Your task to perform on an android device: Clear the shopping cart on ebay. Add "lenovo thinkpad" to the cart on ebay, then select checkout. Image 0: 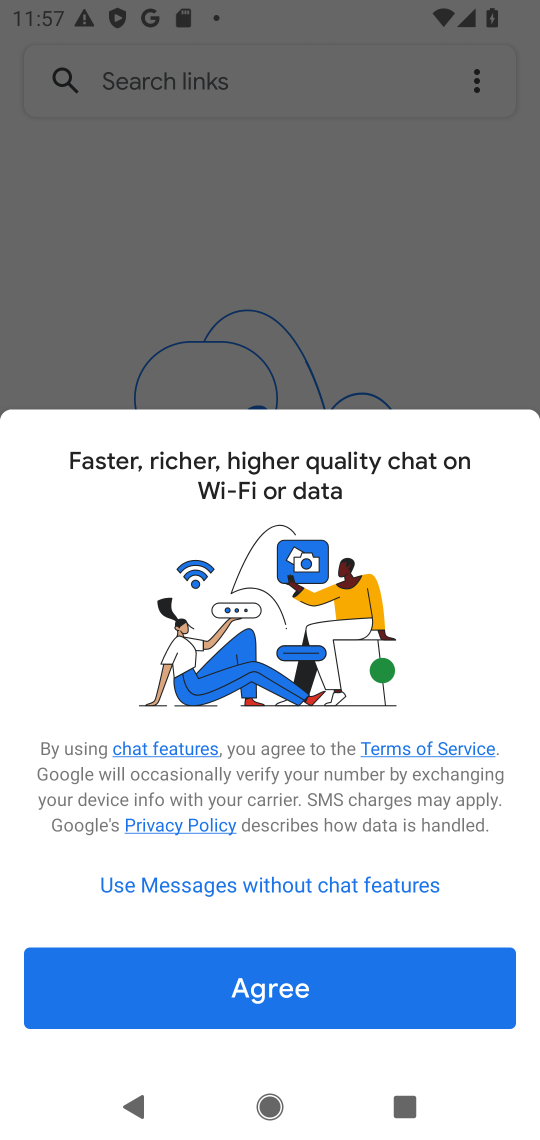
Step 0: press home button
Your task to perform on an android device: Clear the shopping cart on ebay. Add "lenovo thinkpad" to the cart on ebay, then select checkout. Image 1: 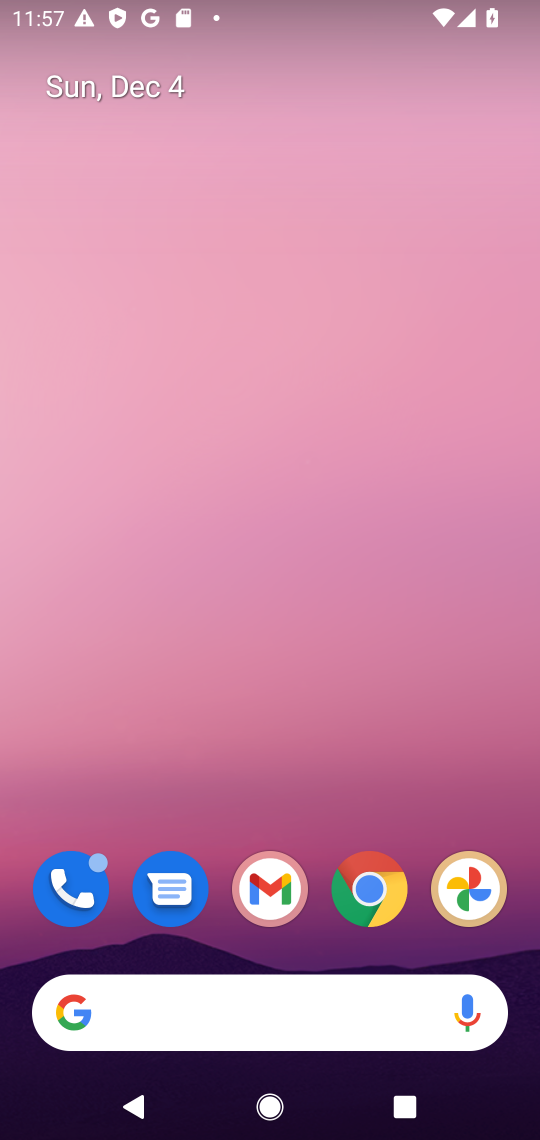
Step 1: click (366, 898)
Your task to perform on an android device: Clear the shopping cart on ebay. Add "lenovo thinkpad" to the cart on ebay, then select checkout. Image 2: 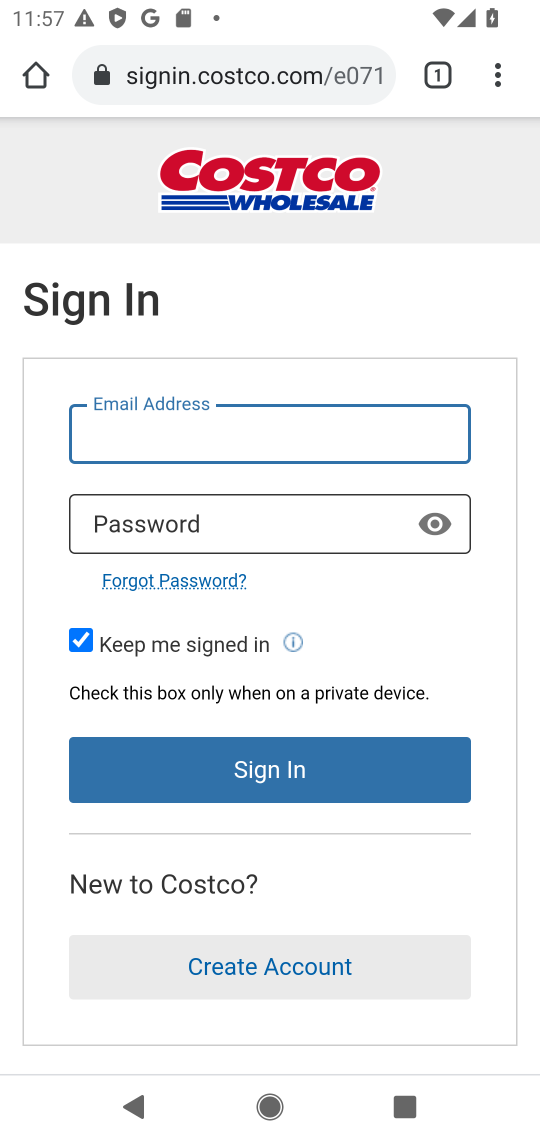
Step 2: click (286, 72)
Your task to perform on an android device: Clear the shopping cart on ebay. Add "lenovo thinkpad" to the cart on ebay, then select checkout. Image 3: 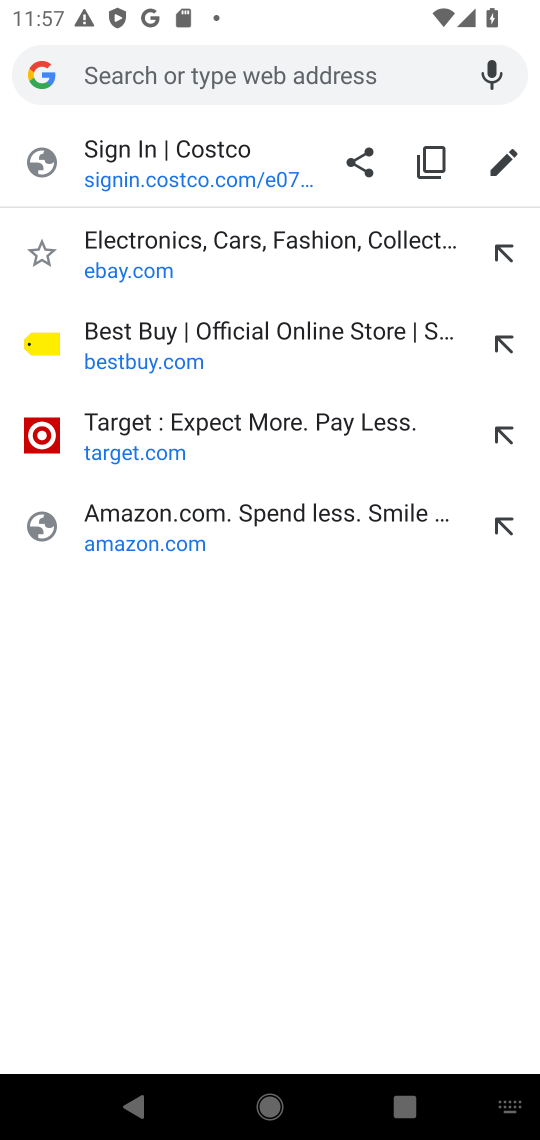
Step 3: click (192, 243)
Your task to perform on an android device: Clear the shopping cart on ebay. Add "lenovo thinkpad" to the cart on ebay, then select checkout. Image 4: 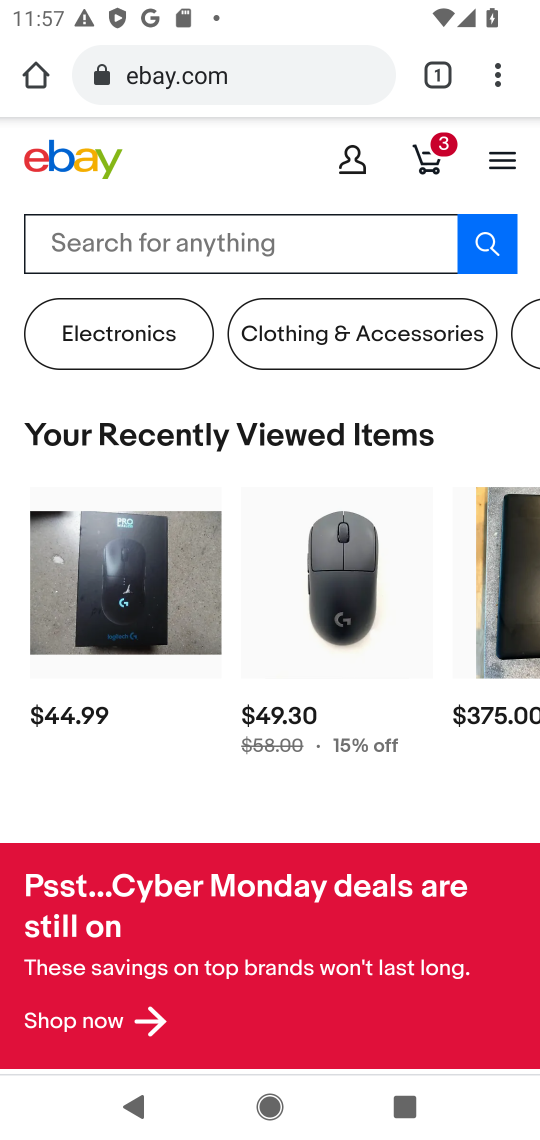
Step 4: click (438, 164)
Your task to perform on an android device: Clear the shopping cart on ebay. Add "lenovo thinkpad" to the cart on ebay, then select checkout. Image 5: 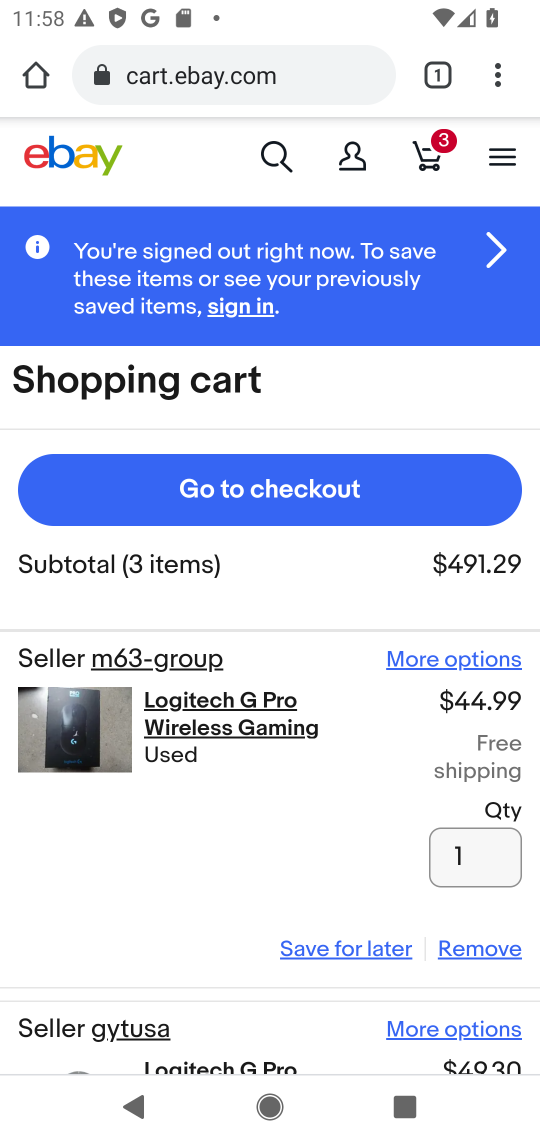
Step 5: click (497, 939)
Your task to perform on an android device: Clear the shopping cart on ebay. Add "lenovo thinkpad" to the cart on ebay, then select checkout. Image 6: 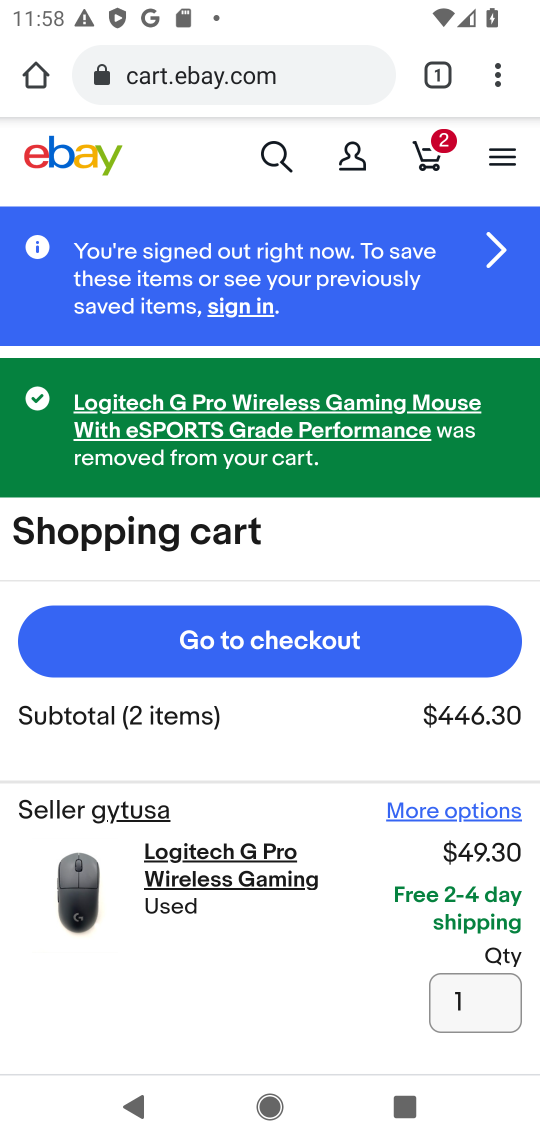
Step 6: drag from (362, 914) to (369, 553)
Your task to perform on an android device: Clear the shopping cart on ebay. Add "lenovo thinkpad" to the cart on ebay, then select checkout. Image 7: 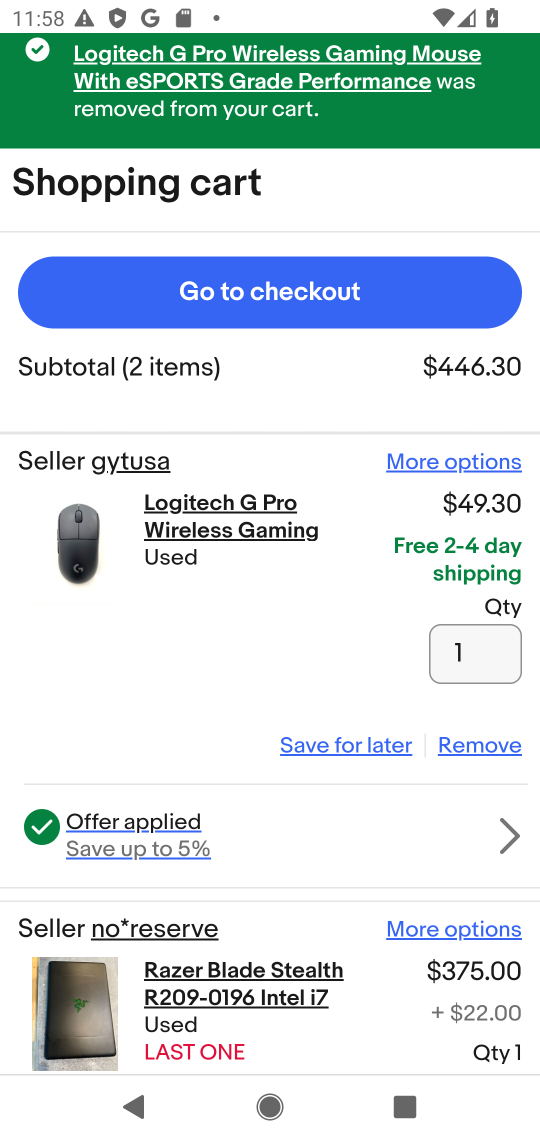
Step 7: click (487, 741)
Your task to perform on an android device: Clear the shopping cart on ebay. Add "lenovo thinkpad" to the cart on ebay, then select checkout. Image 8: 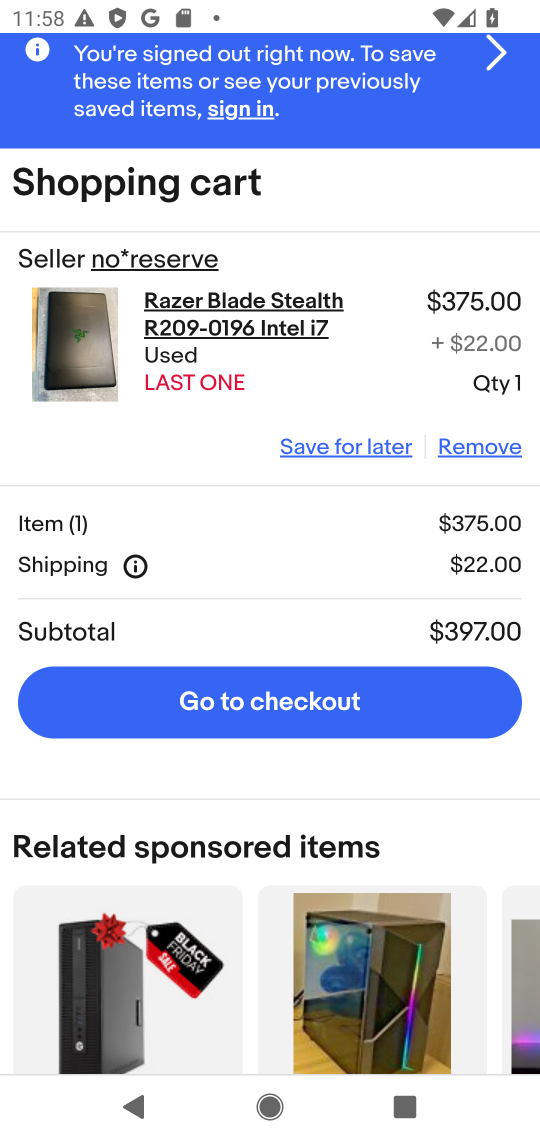
Step 8: click (480, 446)
Your task to perform on an android device: Clear the shopping cart on ebay. Add "lenovo thinkpad" to the cart on ebay, then select checkout. Image 9: 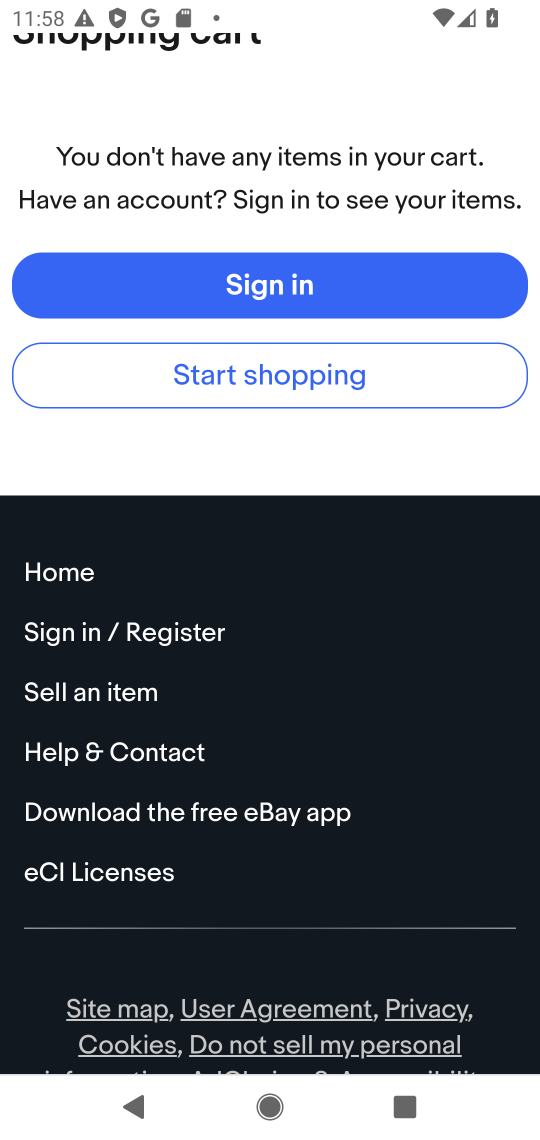
Step 9: drag from (488, 252) to (538, 517)
Your task to perform on an android device: Clear the shopping cart on ebay. Add "lenovo thinkpad" to the cart on ebay, then select checkout. Image 10: 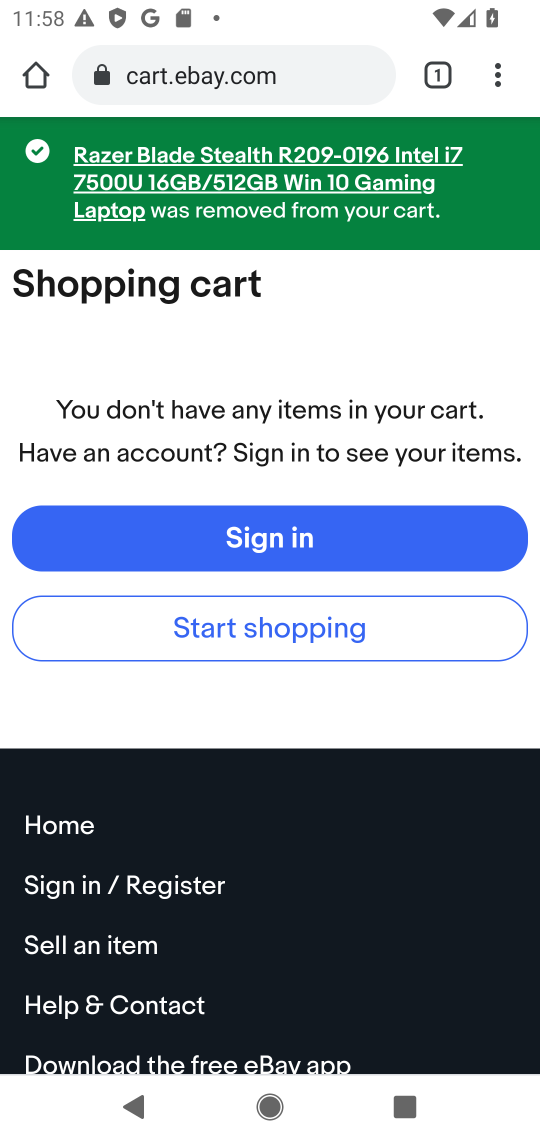
Step 10: press back button
Your task to perform on an android device: Clear the shopping cart on ebay. Add "lenovo thinkpad" to the cart on ebay, then select checkout. Image 11: 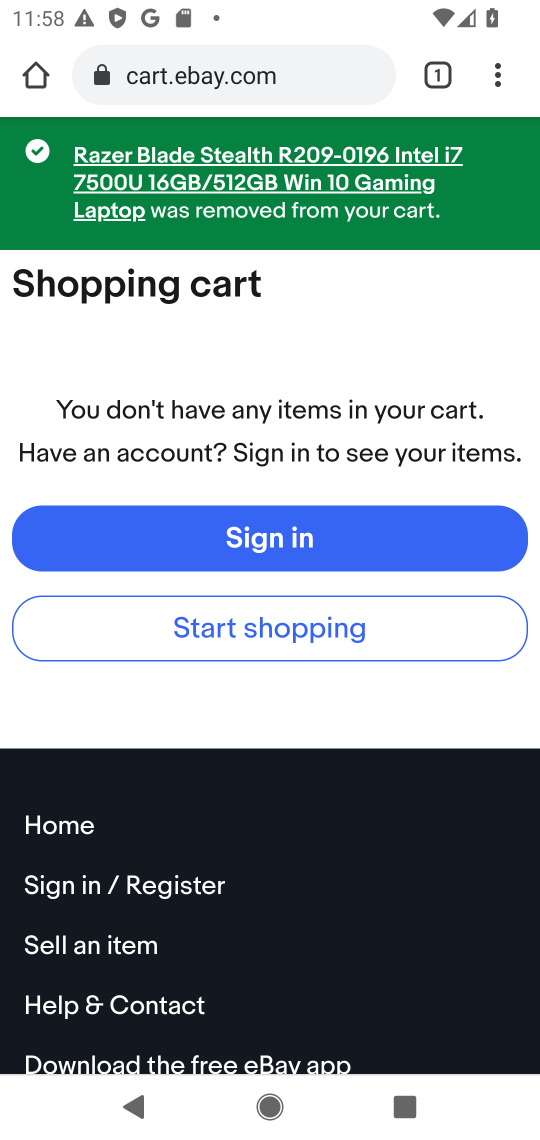
Step 11: drag from (538, 517) to (469, 926)
Your task to perform on an android device: Clear the shopping cart on ebay. Add "lenovo thinkpad" to the cart on ebay, then select checkout. Image 12: 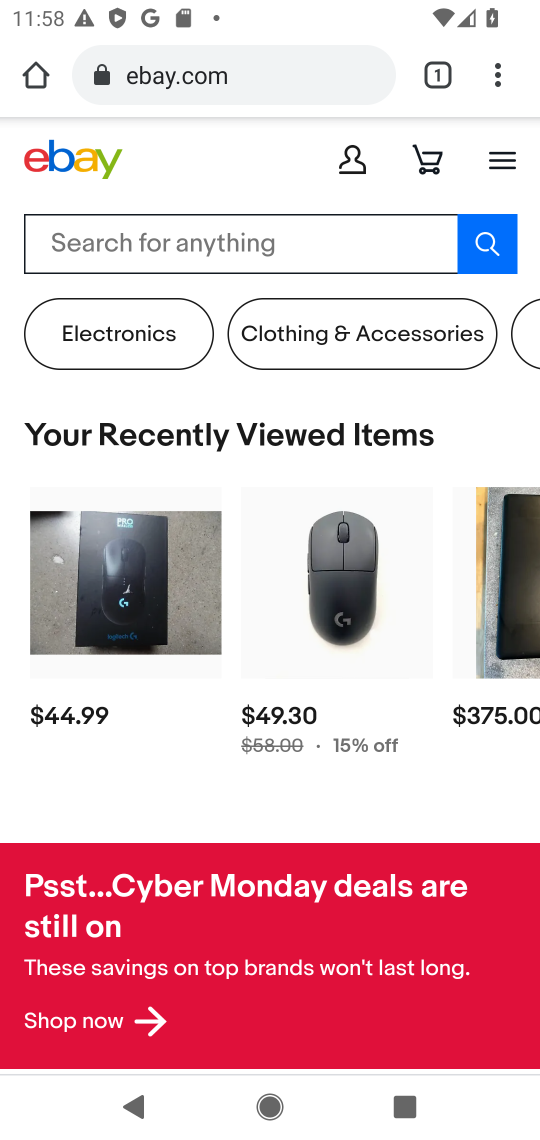
Step 12: click (324, 244)
Your task to perform on an android device: Clear the shopping cart on ebay. Add "lenovo thinkpad" to the cart on ebay, then select checkout. Image 13: 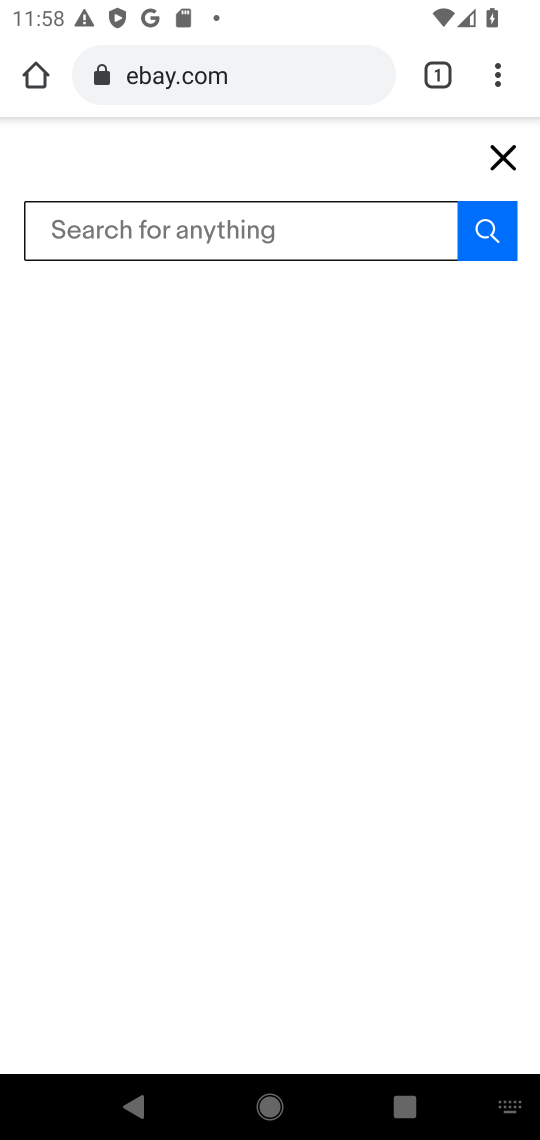
Step 13: type "lenovo thinkpad"
Your task to perform on an android device: Clear the shopping cart on ebay. Add "lenovo thinkpad" to the cart on ebay, then select checkout. Image 14: 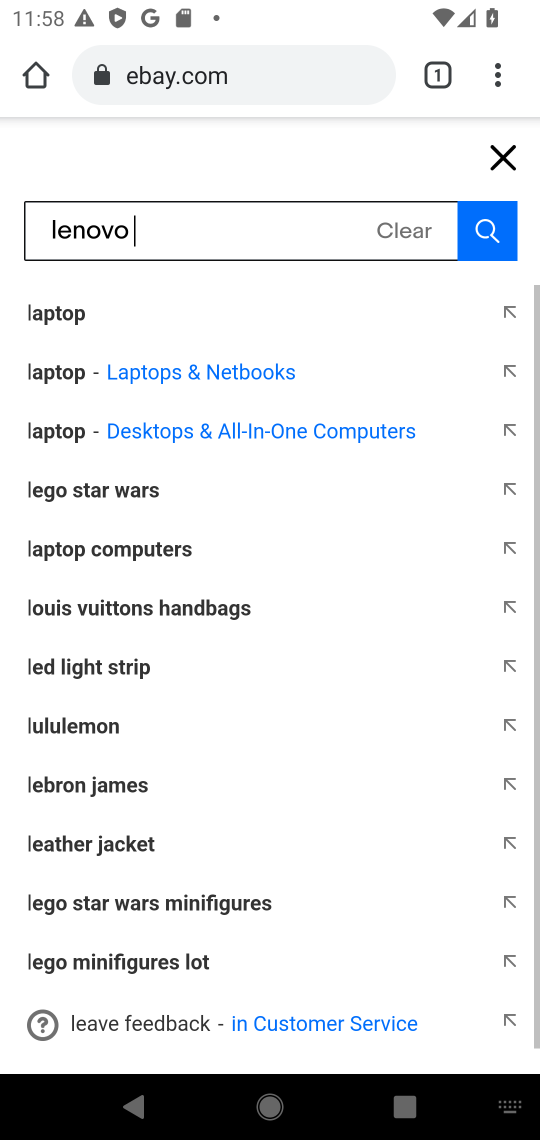
Step 14: press enter
Your task to perform on an android device: Clear the shopping cart on ebay. Add "lenovo thinkpad" to the cart on ebay, then select checkout. Image 15: 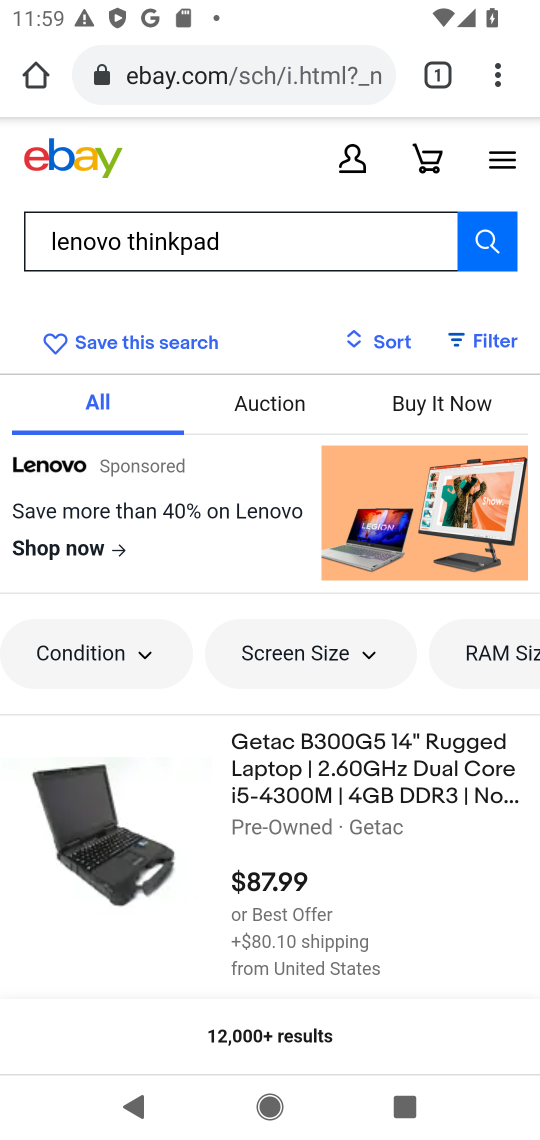
Step 15: drag from (440, 883) to (470, 291)
Your task to perform on an android device: Clear the shopping cart on ebay. Add "lenovo thinkpad" to the cart on ebay, then select checkout. Image 16: 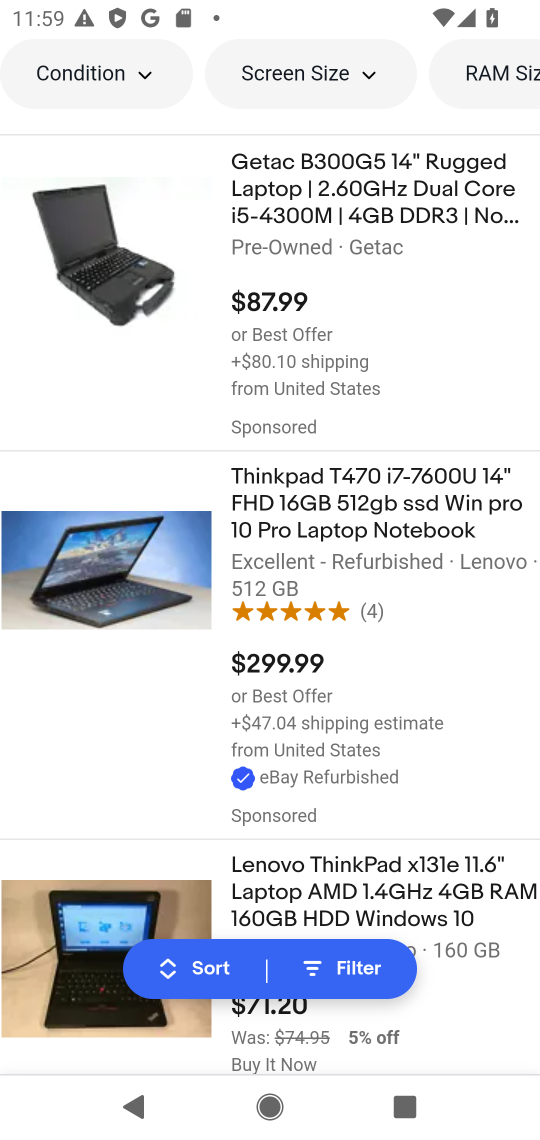
Step 16: drag from (386, 671) to (456, 325)
Your task to perform on an android device: Clear the shopping cart on ebay. Add "lenovo thinkpad" to the cart on ebay, then select checkout. Image 17: 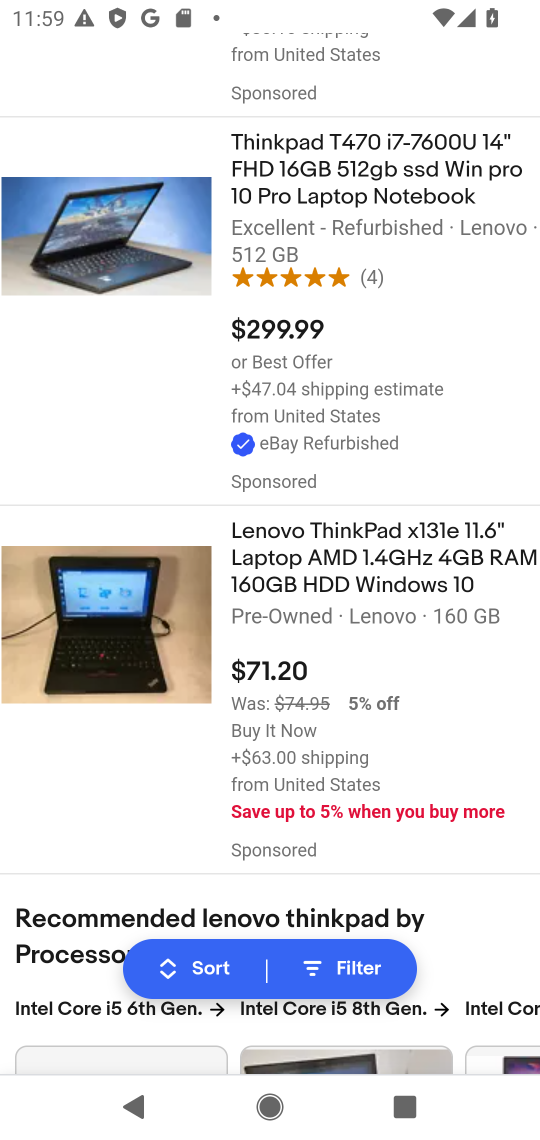
Step 17: click (135, 647)
Your task to perform on an android device: Clear the shopping cart on ebay. Add "lenovo thinkpad" to the cart on ebay, then select checkout. Image 18: 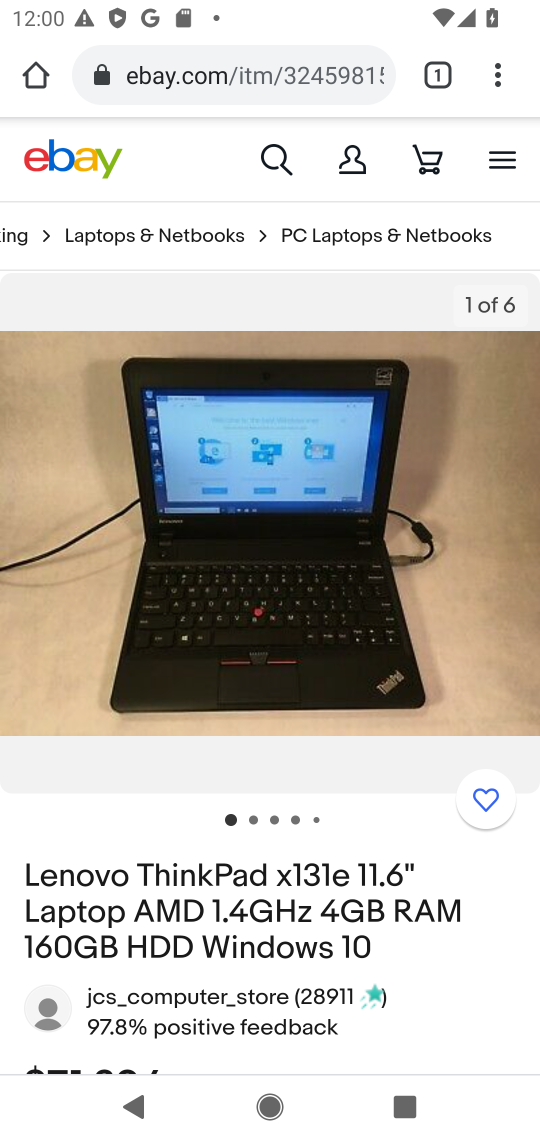
Step 18: drag from (417, 891) to (429, 385)
Your task to perform on an android device: Clear the shopping cart on ebay. Add "lenovo thinkpad" to the cart on ebay, then select checkout. Image 19: 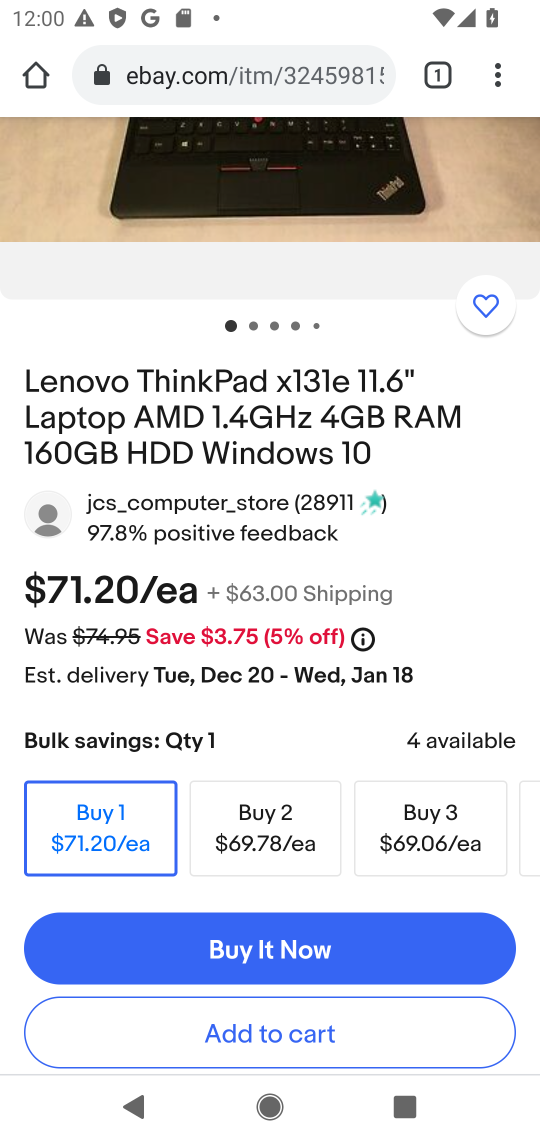
Step 19: click (366, 1042)
Your task to perform on an android device: Clear the shopping cart on ebay. Add "lenovo thinkpad" to the cart on ebay, then select checkout. Image 20: 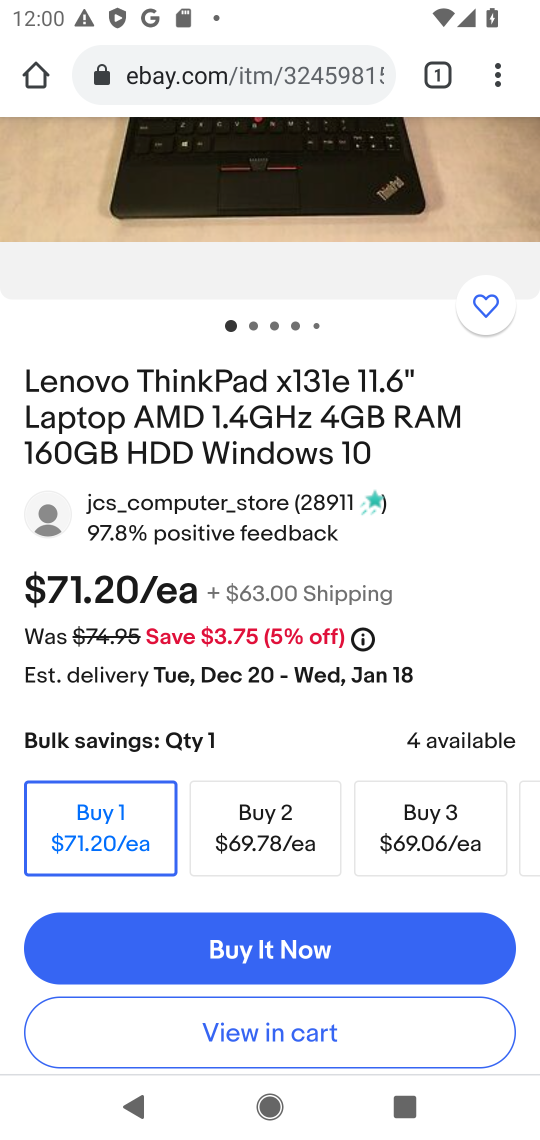
Step 20: click (319, 1034)
Your task to perform on an android device: Clear the shopping cart on ebay. Add "lenovo thinkpad" to the cart on ebay, then select checkout. Image 21: 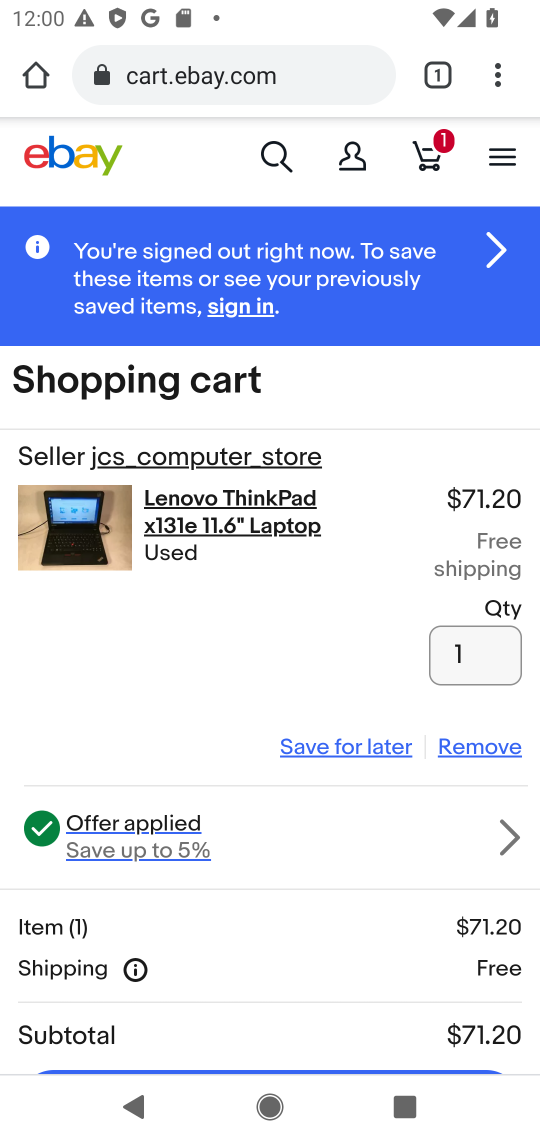
Step 21: drag from (378, 908) to (380, 264)
Your task to perform on an android device: Clear the shopping cart on ebay. Add "lenovo thinkpad" to the cart on ebay, then select checkout. Image 22: 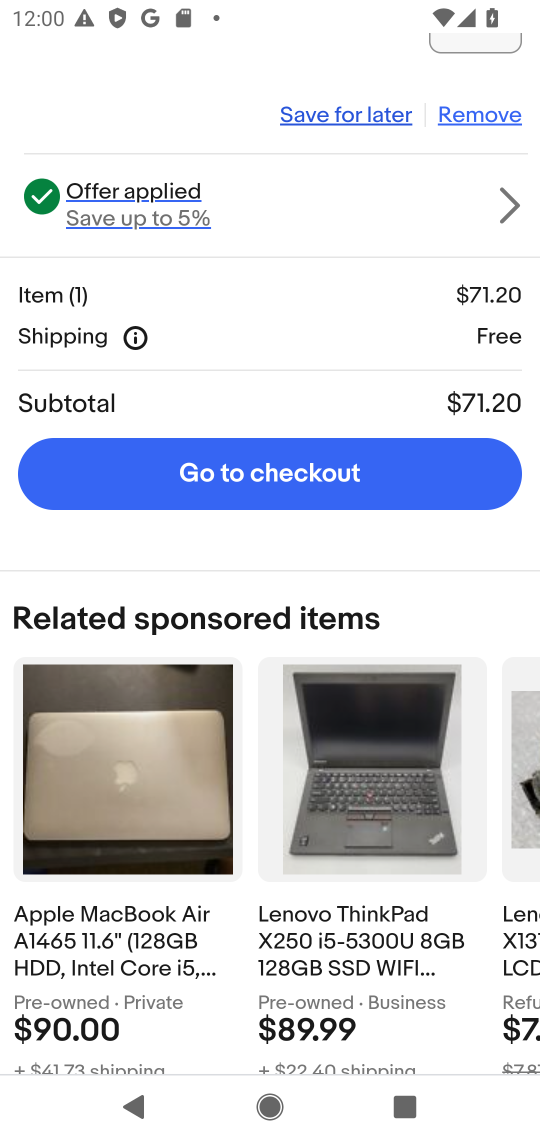
Step 22: click (300, 467)
Your task to perform on an android device: Clear the shopping cart on ebay. Add "lenovo thinkpad" to the cart on ebay, then select checkout. Image 23: 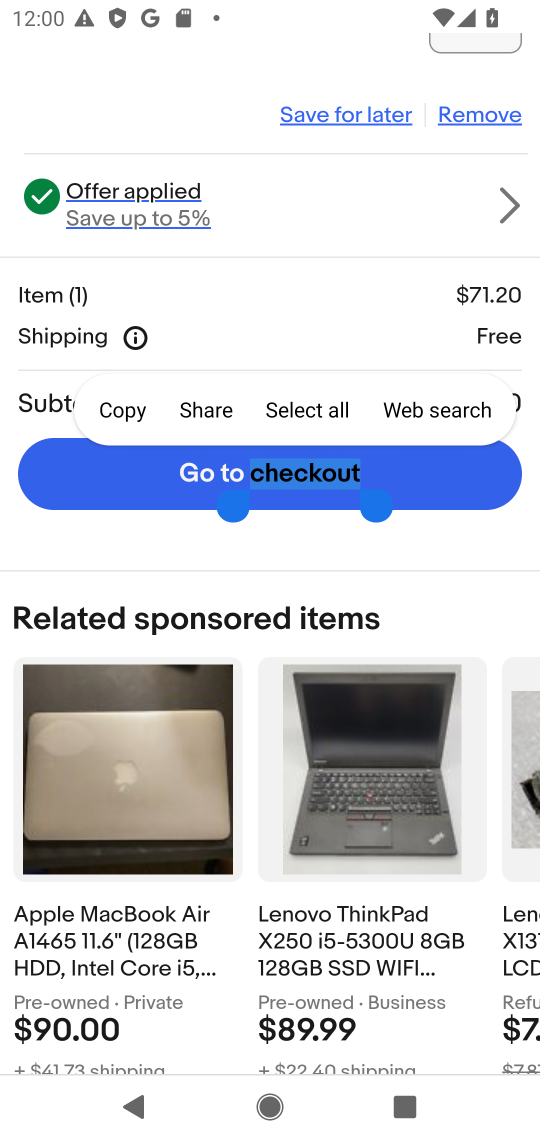
Step 23: click (202, 478)
Your task to perform on an android device: Clear the shopping cart on ebay. Add "lenovo thinkpad" to the cart on ebay, then select checkout. Image 24: 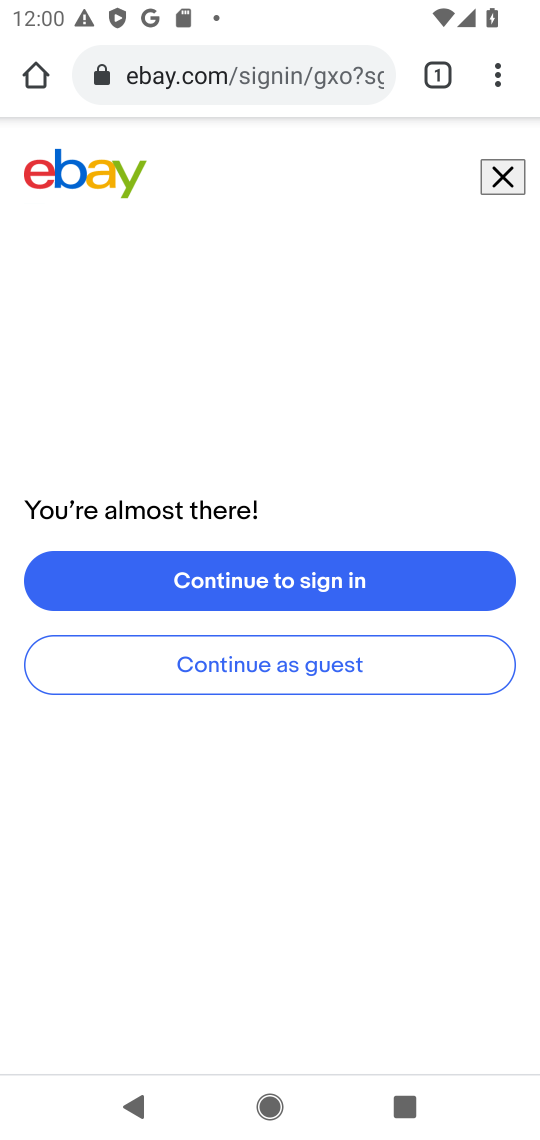
Step 24: task complete